Your task to perform on an android device: Look up the best rated power drills on Lowes.com Image 0: 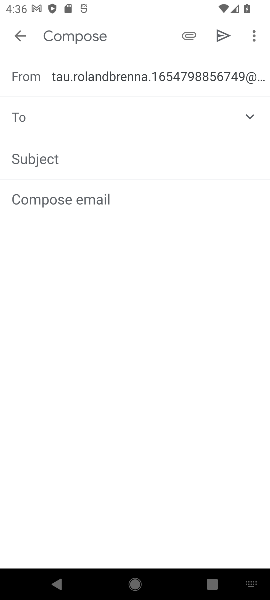
Step 0: press home button
Your task to perform on an android device: Look up the best rated power drills on Lowes.com Image 1: 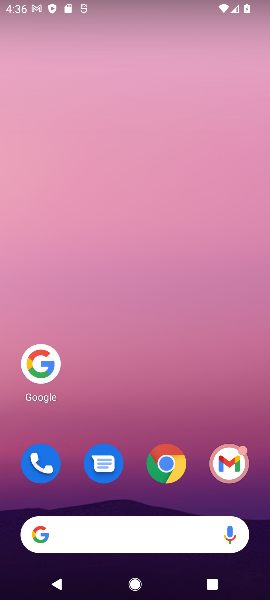
Step 1: click (40, 356)
Your task to perform on an android device: Look up the best rated power drills on Lowes.com Image 2: 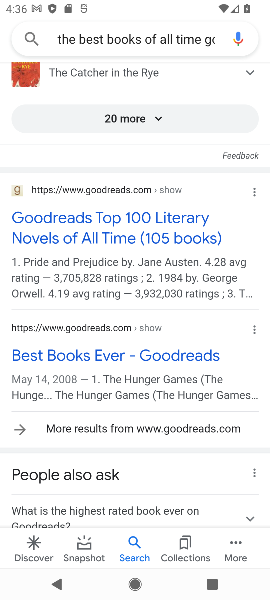
Step 2: drag from (168, 135) to (173, 472)
Your task to perform on an android device: Look up the best rated power drills on Lowes.com Image 3: 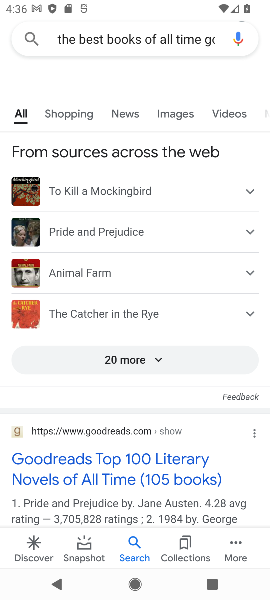
Step 3: click (145, 41)
Your task to perform on an android device: Look up the best rated power drills on Lowes.com Image 4: 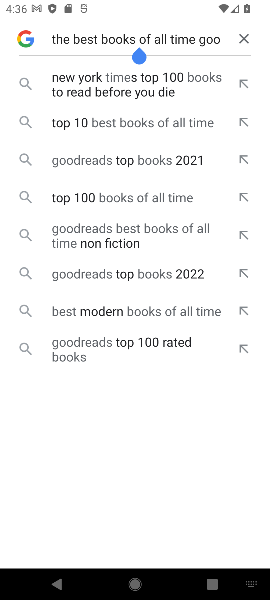
Step 4: click (246, 34)
Your task to perform on an android device: Look up the best rated power drills on Lowes.com Image 5: 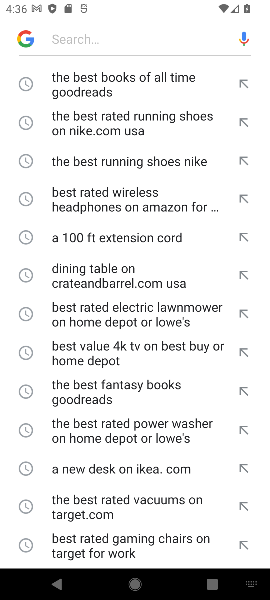
Step 5: click (132, 32)
Your task to perform on an android device: Look up the best rated power drills on Lowes.com Image 6: 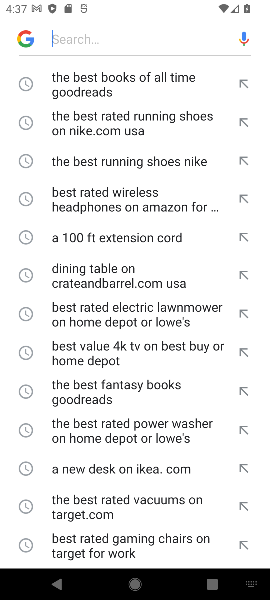
Step 6: type "the best rated power drills on Lowes.com "
Your task to perform on an android device: Look up the best rated power drills on Lowes.com Image 7: 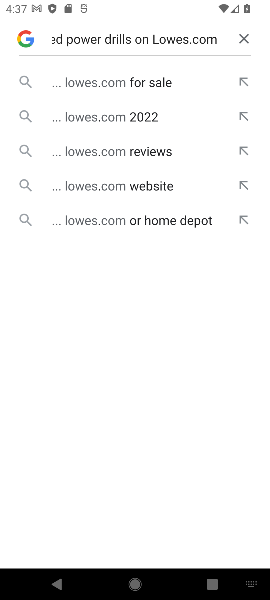
Step 7: click (136, 78)
Your task to perform on an android device: Look up the best rated power drills on Lowes.com Image 8: 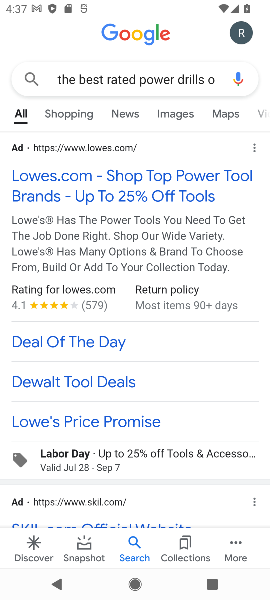
Step 8: drag from (157, 453) to (180, 190)
Your task to perform on an android device: Look up the best rated power drills on Lowes.com Image 9: 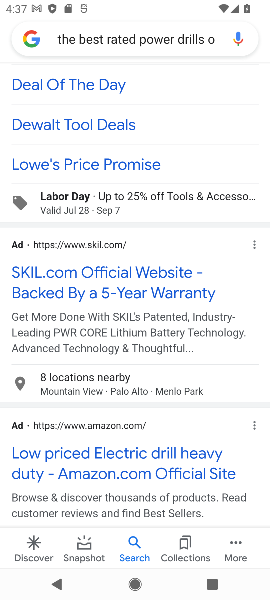
Step 9: drag from (148, 122) to (179, 474)
Your task to perform on an android device: Look up the best rated power drills on Lowes.com Image 10: 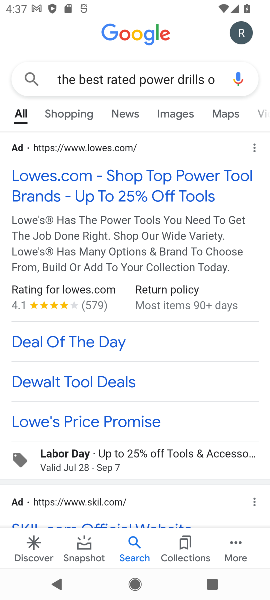
Step 10: click (124, 191)
Your task to perform on an android device: Look up the best rated power drills on Lowes.com Image 11: 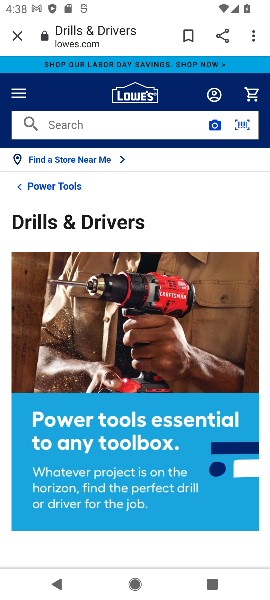
Step 11: task complete